Your task to perform on an android device: change alarm snooze length Image 0: 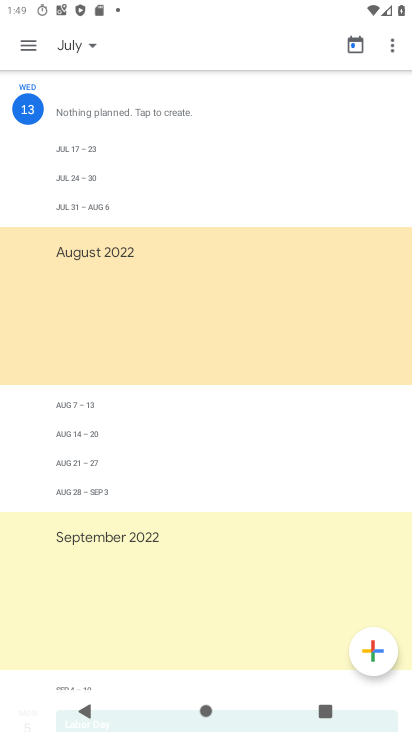
Step 0: press home button
Your task to perform on an android device: change alarm snooze length Image 1: 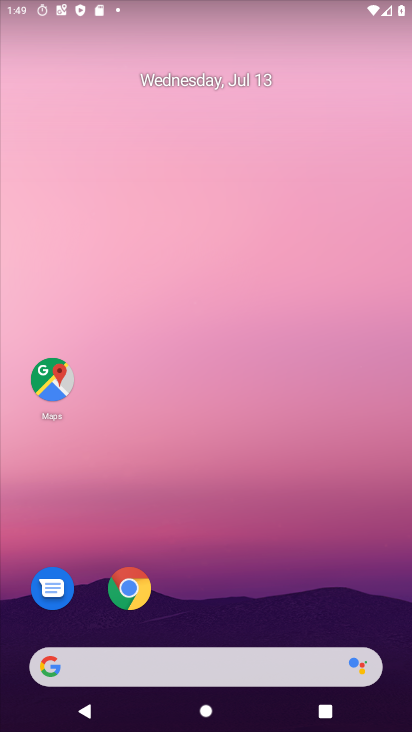
Step 1: drag from (226, 636) to (265, 267)
Your task to perform on an android device: change alarm snooze length Image 2: 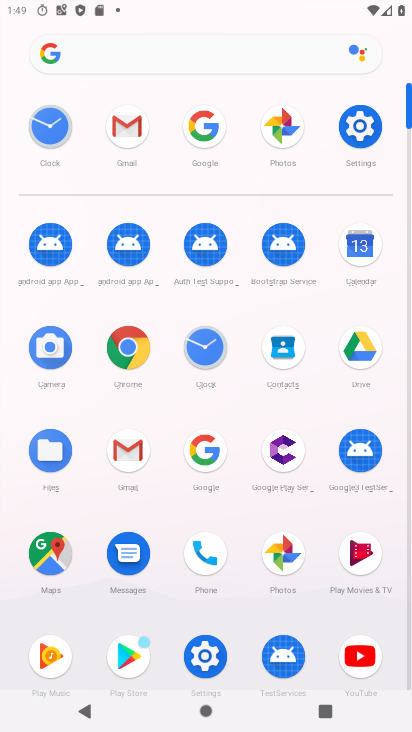
Step 2: click (221, 342)
Your task to perform on an android device: change alarm snooze length Image 3: 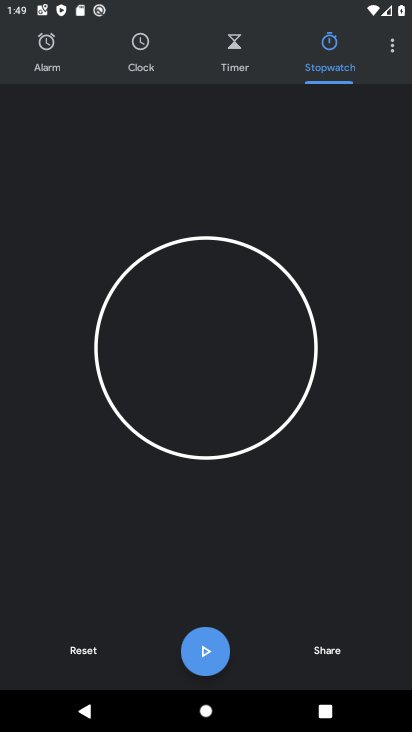
Step 3: click (397, 56)
Your task to perform on an android device: change alarm snooze length Image 4: 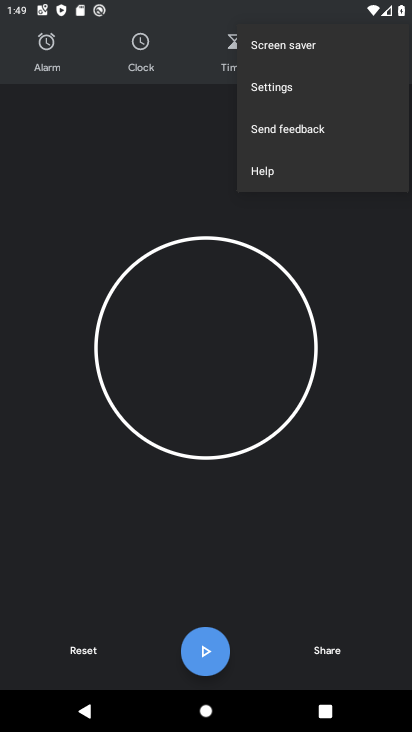
Step 4: click (287, 86)
Your task to perform on an android device: change alarm snooze length Image 5: 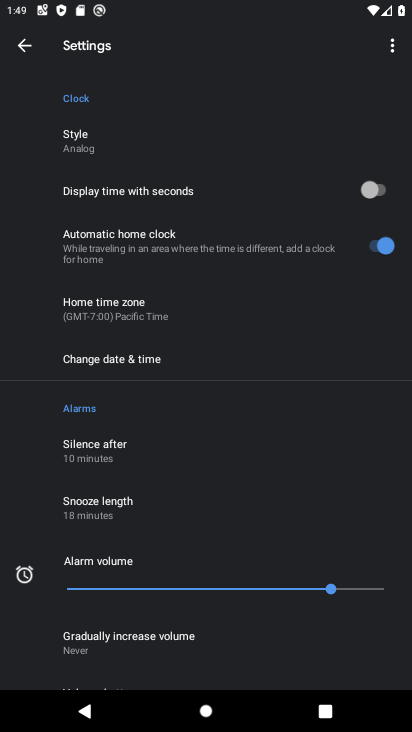
Step 5: click (112, 500)
Your task to perform on an android device: change alarm snooze length Image 6: 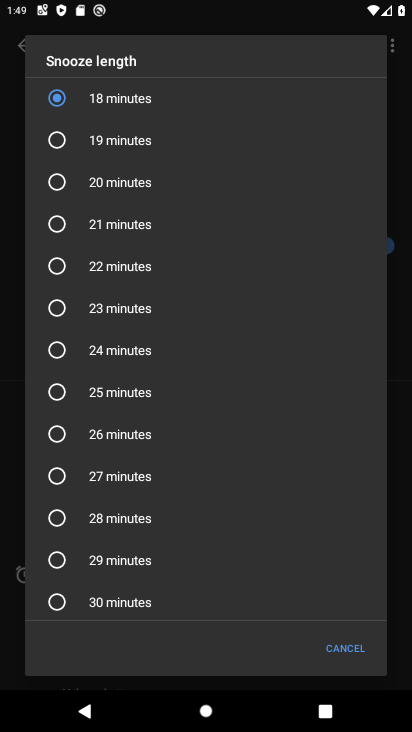
Step 6: click (131, 480)
Your task to perform on an android device: change alarm snooze length Image 7: 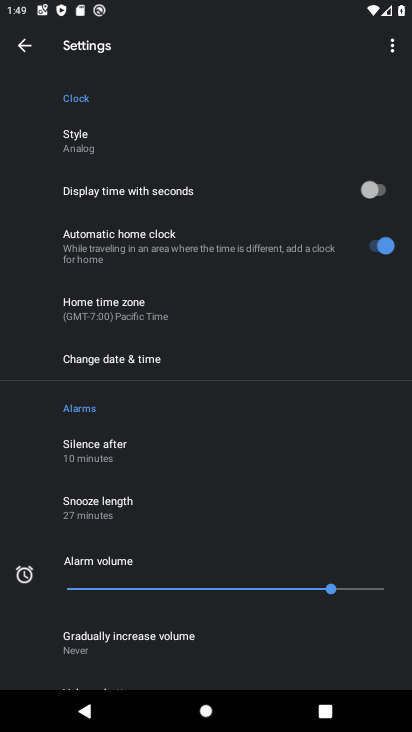
Step 7: task complete